Your task to perform on an android device: Open Android settings Image 0: 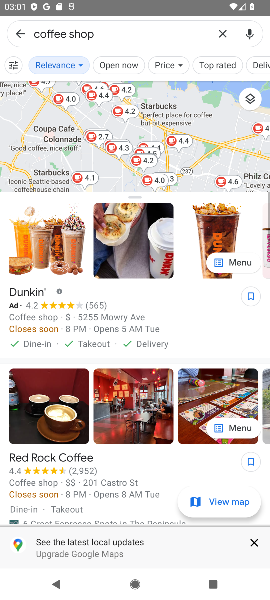
Step 0: press home button
Your task to perform on an android device: Open Android settings Image 1: 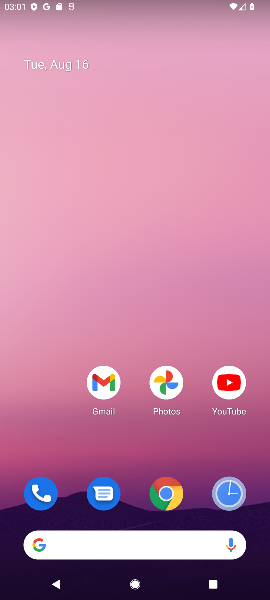
Step 1: drag from (68, 464) to (82, 117)
Your task to perform on an android device: Open Android settings Image 2: 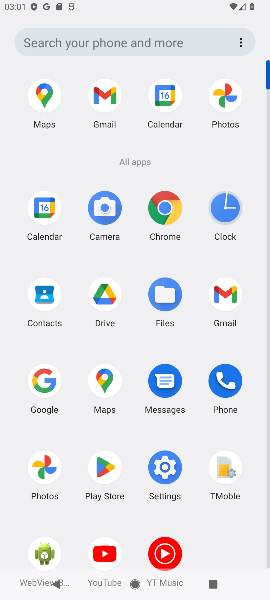
Step 2: click (164, 472)
Your task to perform on an android device: Open Android settings Image 3: 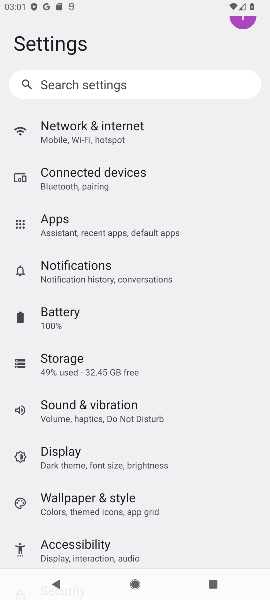
Step 3: drag from (197, 451) to (205, 365)
Your task to perform on an android device: Open Android settings Image 4: 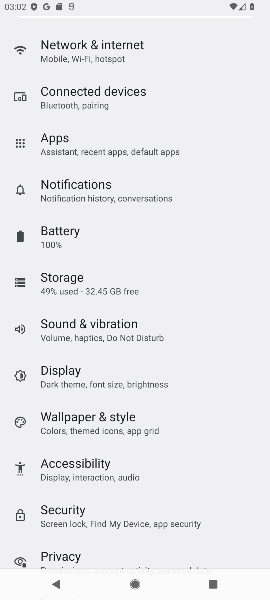
Step 4: drag from (236, 526) to (235, 351)
Your task to perform on an android device: Open Android settings Image 5: 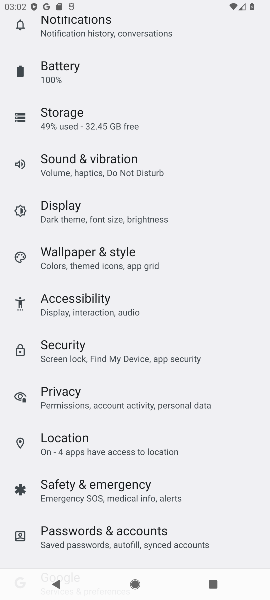
Step 5: drag from (233, 503) to (236, 360)
Your task to perform on an android device: Open Android settings Image 6: 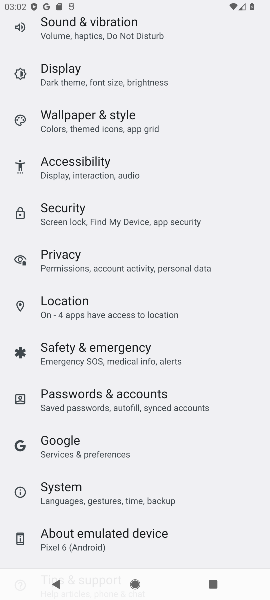
Step 6: drag from (227, 512) to (234, 383)
Your task to perform on an android device: Open Android settings Image 7: 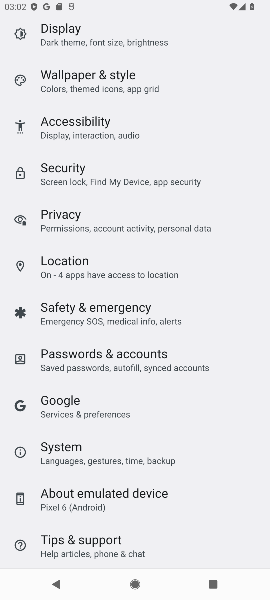
Step 7: click (194, 464)
Your task to perform on an android device: Open Android settings Image 8: 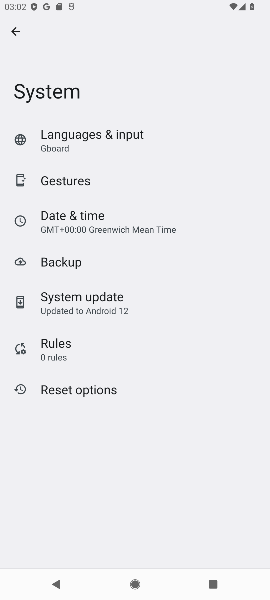
Step 8: task complete